Your task to perform on an android device: Is it going to rain this weekend? Image 0: 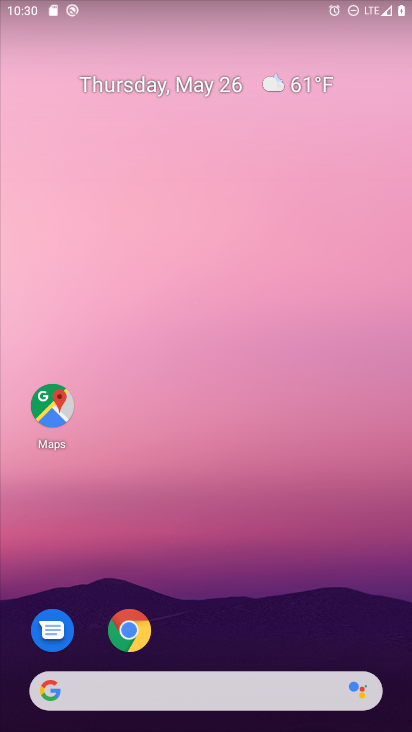
Step 0: drag from (204, 653) to (98, 55)
Your task to perform on an android device: Is it going to rain this weekend? Image 1: 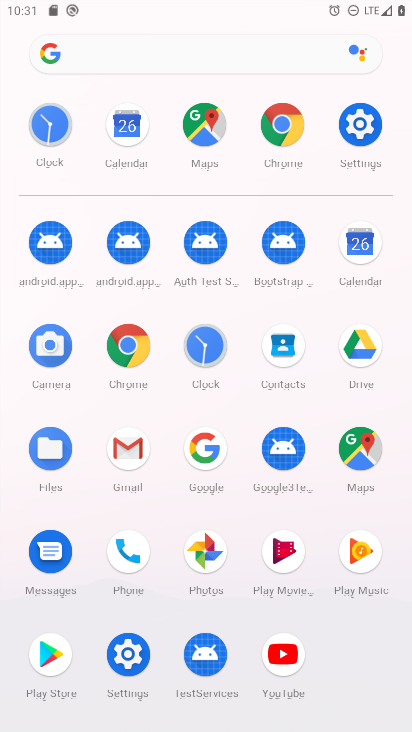
Step 1: click (240, 467)
Your task to perform on an android device: Is it going to rain this weekend? Image 2: 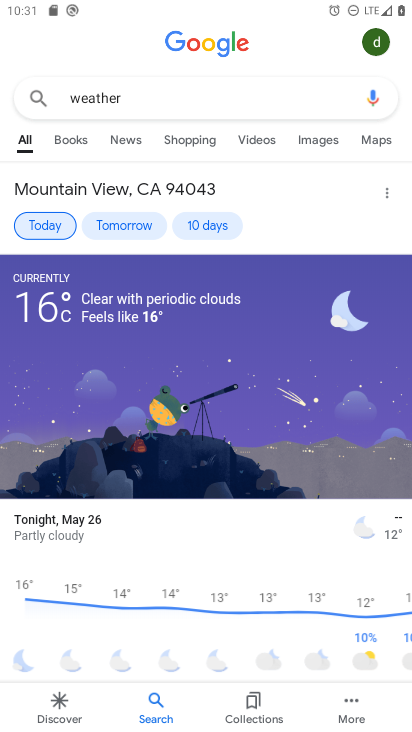
Step 2: click (195, 212)
Your task to perform on an android device: Is it going to rain this weekend? Image 3: 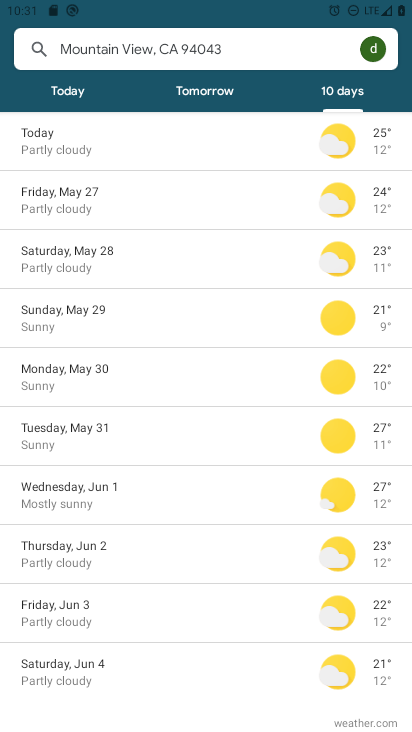
Step 3: task complete